Your task to perform on an android device: Open Google Chrome and open the bookmarks view Image 0: 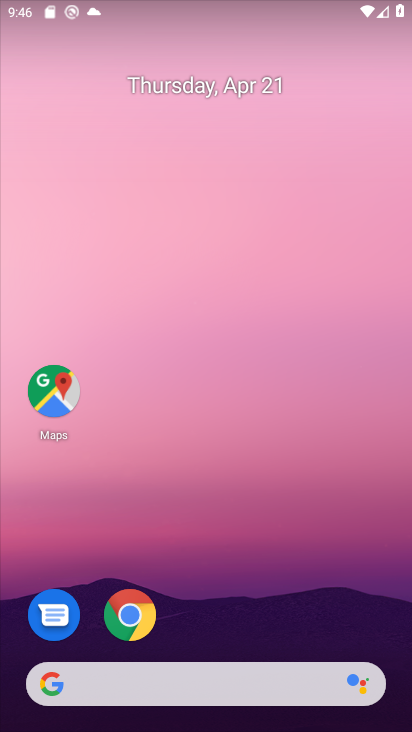
Step 0: press home button
Your task to perform on an android device: Open Google Chrome and open the bookmarks view Image 1: 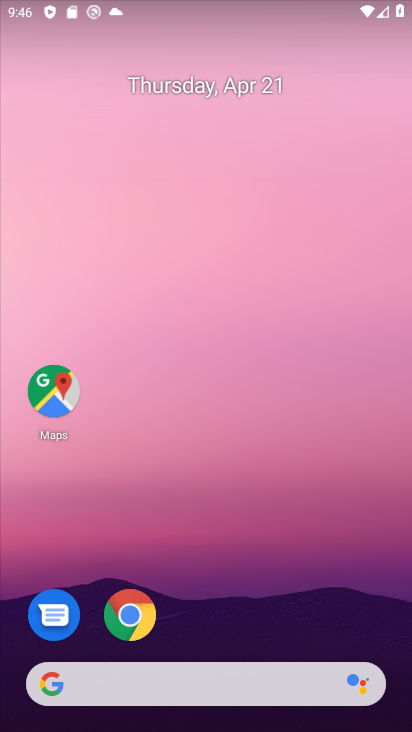
Step 1: drag from (213, 626) to (276, 79)
Your task to perform on an android device: Open Google Chrome and open the bookmarks view Image 2: 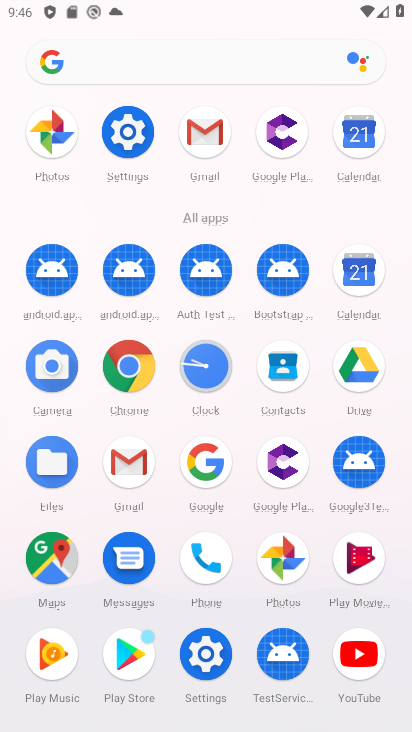
Step 2: click (134, 368)
Your task to perform on an android device: Open Google Chrome and open the bookmarks view Image 3: 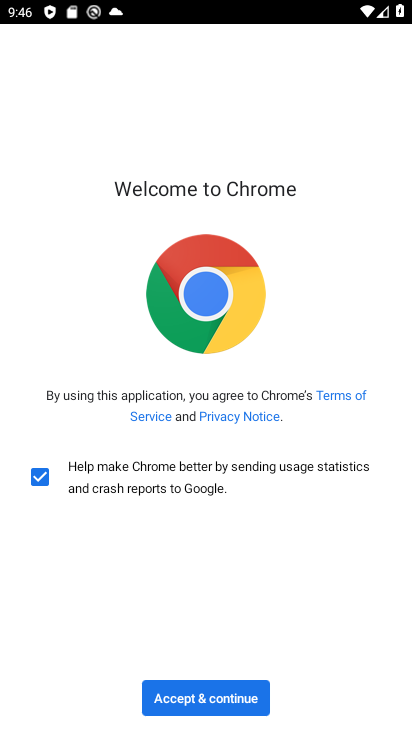
Step 3: click (213, 692)
Your task to perform on an android device: Open Google Chrome and open the bookmarks view Image 4: 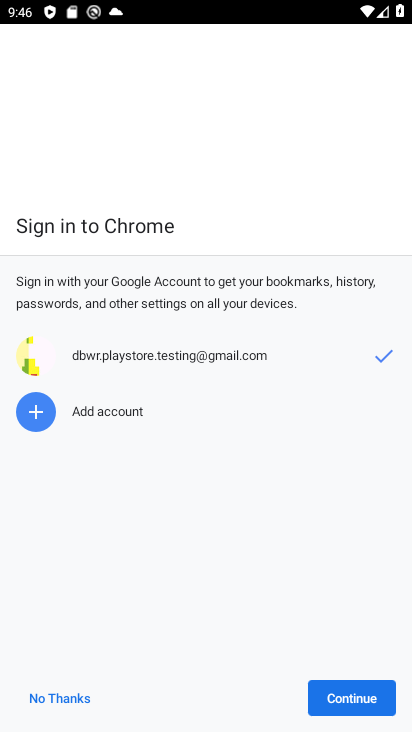
Step 4: click (358, 697)
Your task to perform on an android device: Open Google Chrome and open the bookmarks view Image 5: 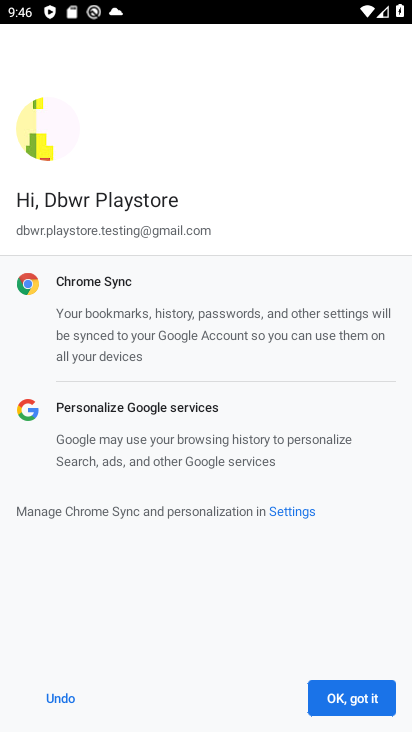
Step 5: click (360, 702)
Your task to perform on an android device: Open Google Chrome and open the bookmarks view Image 6: 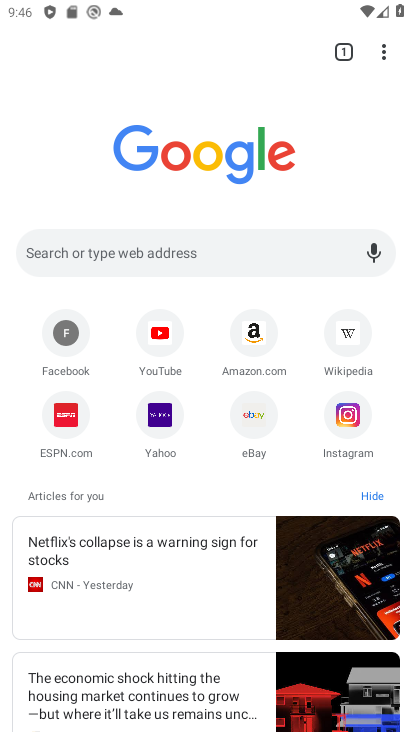
Step 6: click (378, 48)
Your task to perform on an android device: Open Google Chrome and open the bookmarks view Image 7: 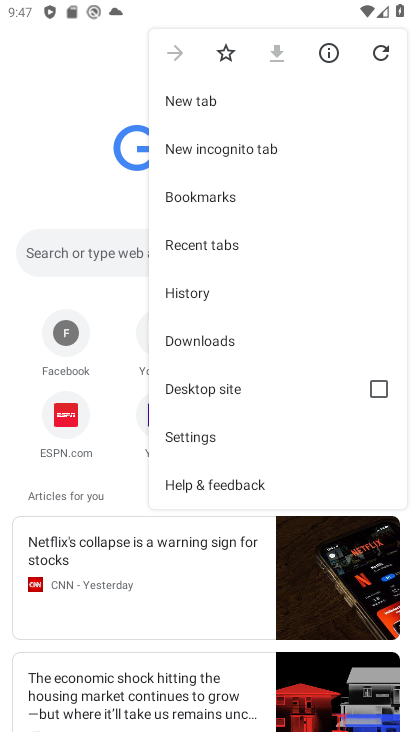
Step 7: click (237, 196)
Your task to perform on an android device: Open Google Chrome and open the bookmarks view Image 8: 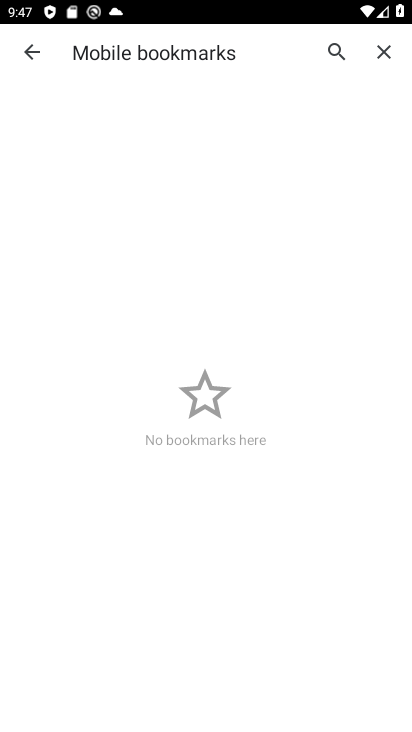
Step 8: task complete